Your task to perform on an android device: allow notifications from all sites in the chrome app Image 0: 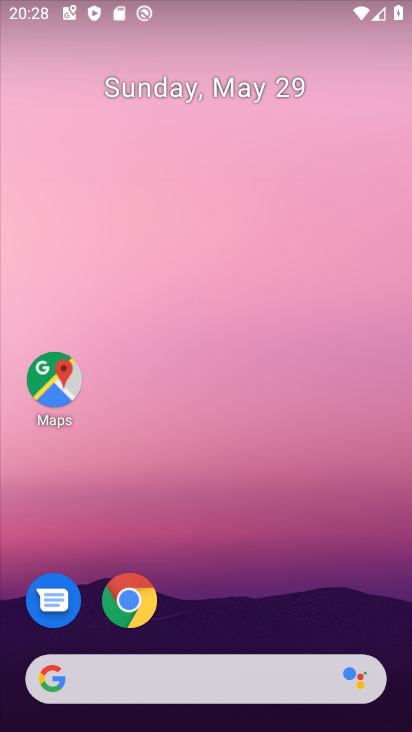
Step 0: drag from (257, 566) to (307, 170)
Your task to perform on an android device: allow notifications from all sites in the chrome app Image 1: 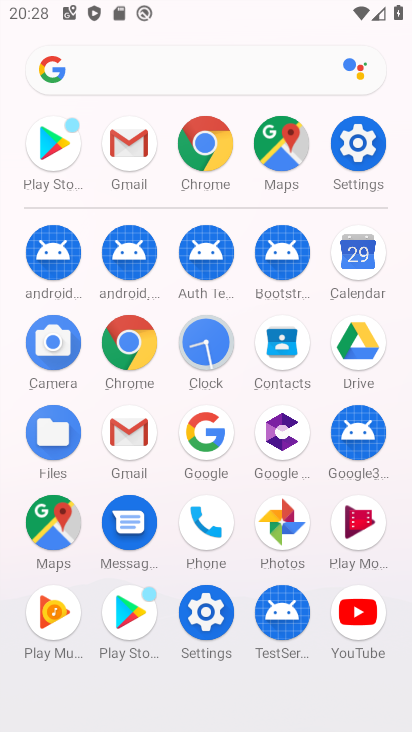
Step 1: click (132, 347)
Your task to perform on an android device: allow notifications from all sites in the chrome app Image 2: 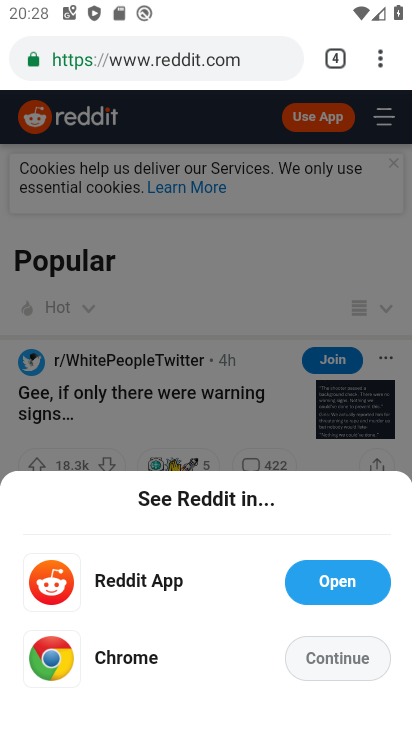
Step 2: drag from (381, 63) to (249, 617)
Your task to perform on an android device: allow notifications from all sites in the chrome app Image 3: 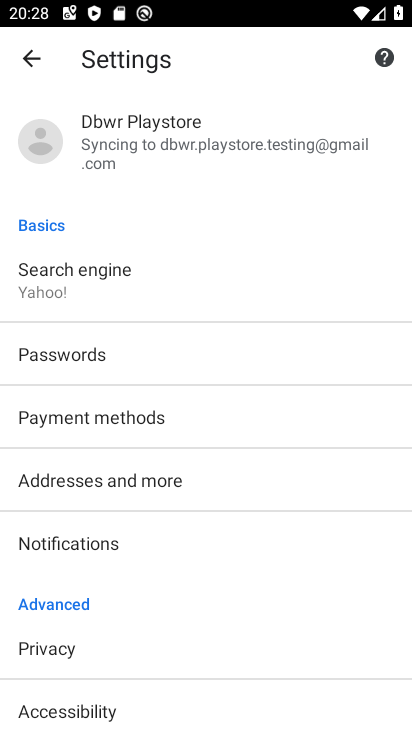
Step 3: drag from (166, 632) to (266, 371)
Your task to perform on an android device: allow notifications from all sites in the chrome app Image 4: 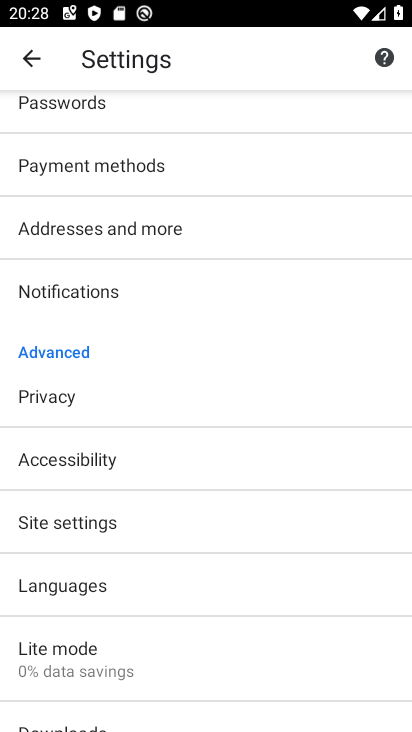
Step 4: click (142, 530)
Your task to perform on an android device: allow notifications from all sites in the chrome app Image 5: 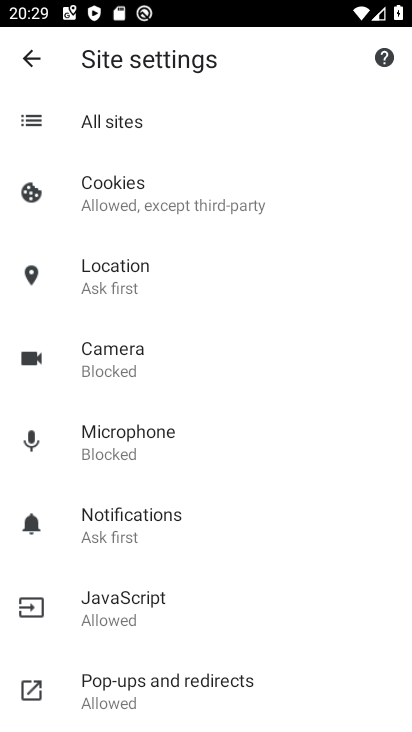
Step 5: click (173, 529)
Your task to perform on an android device: allow notifications from all sites in the chrome app Image 6: 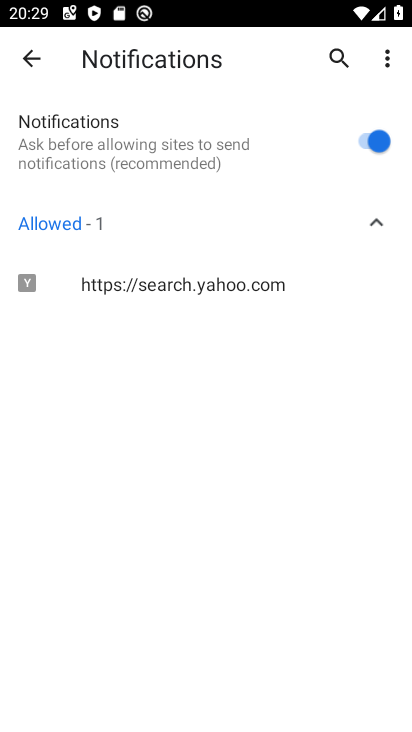
Step 6: task complete